Your task to perform on an android device: turn smart compose on in the gmail app Image 0: 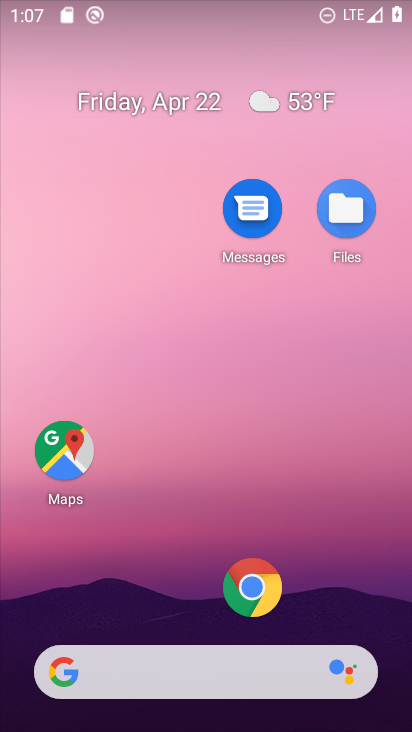
Step 0: drag from (166, 625) to (197, 116)
Your task to perform on an android device: turn smart compose on in the gmail app Image 1: 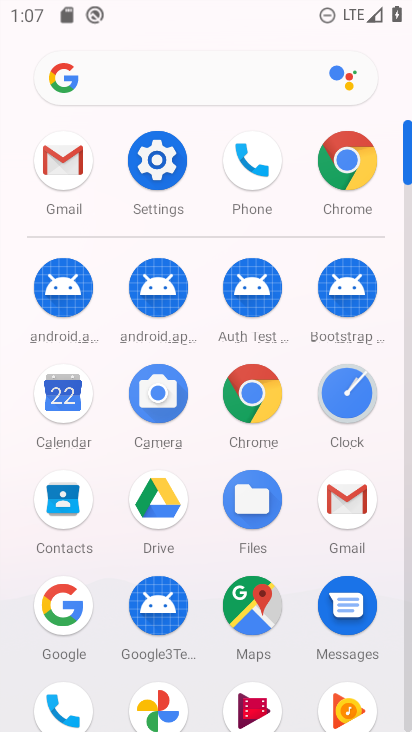
Step 1: click (342, 504)
Your task to perform on an android device: turn smart compose on in the gmail app Image 2: 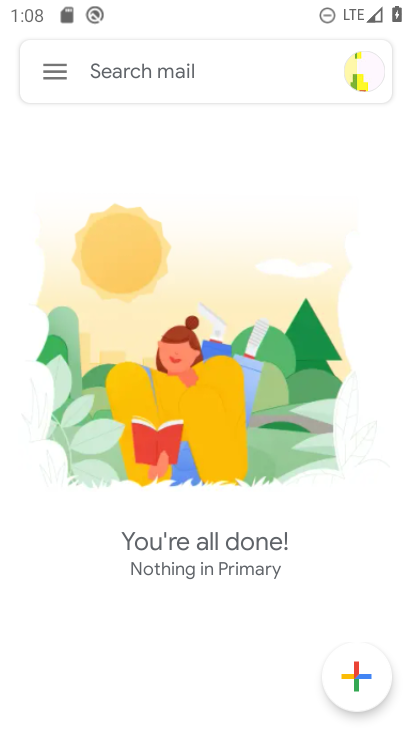
Step 2: click (56, 66)
Your task to perform on an android device: turn smart compose on in the gmail app Image 3: 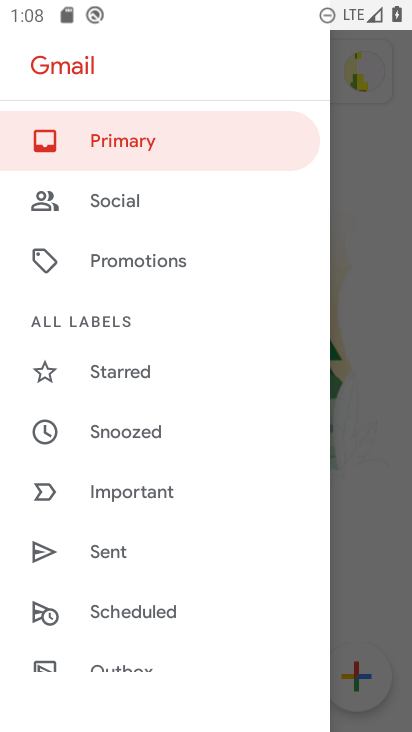
Step 3: drag from (144, 574) to (144, 229)
Your task to perform on an android device: turn smart compose on in the gmail app Image 4: 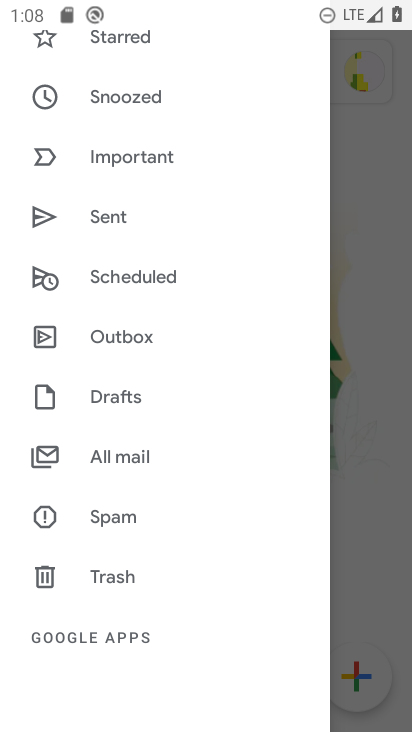
Step 4: drag from (152, 584) to (200, 250)
Your task to perform on an android device: turn smart compose on in the gmail app Image 5: 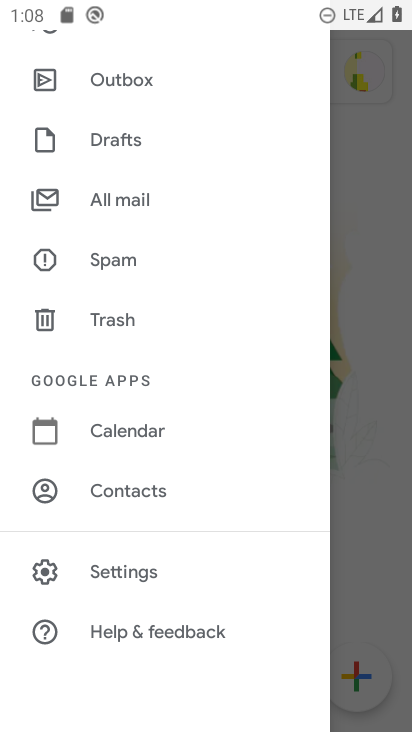
Step 5: click (151, 567)
Your task to perform on an android device: turn smart compose on in the gmail app Image 6: 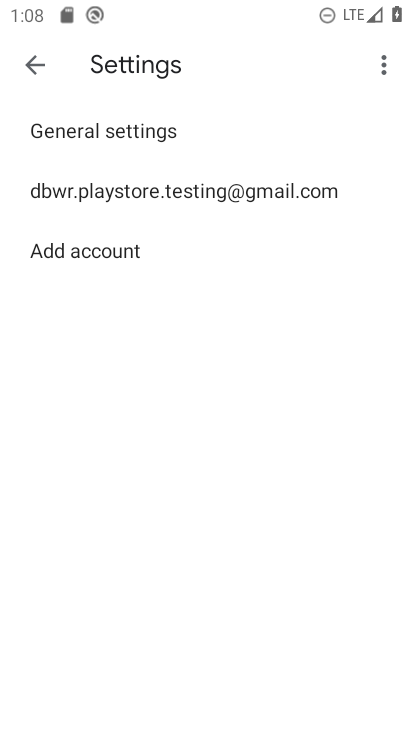
Step 6: click (132, 199)
Your task to perform on an android device: turn smart compose on in the gmail app Image 7: 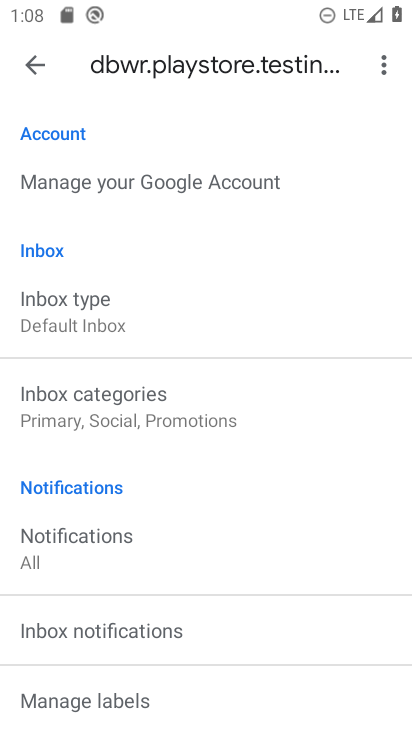
Step 7: task complete